Your task to perform on an android device: allow notifications from all sites in the chrome app Image 0: 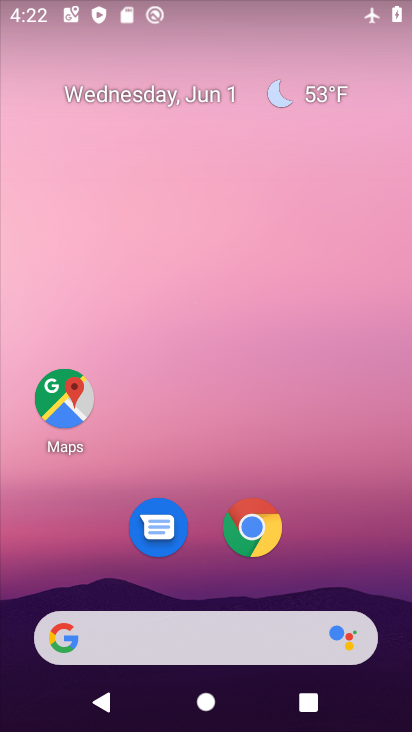
Step 0: drag from (321, 561) to (345, 42)
Your task to perform on an android device: allow notifications from all sites in the chrome app Image 1: 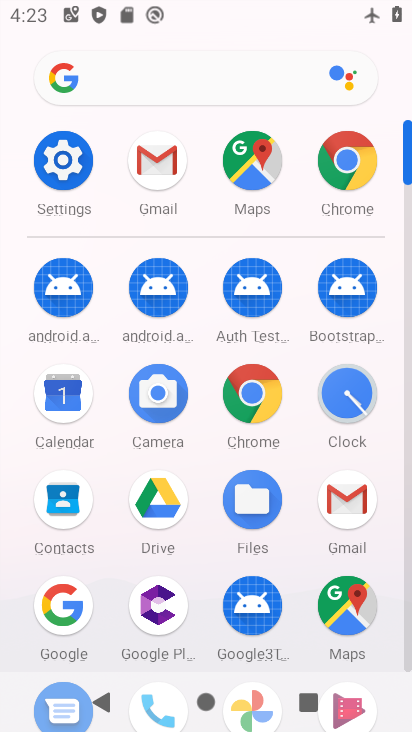
Step 1: click (258, 387)
Your task to perform on an android device: allow notifications from all sites in the chrome app Image 2: 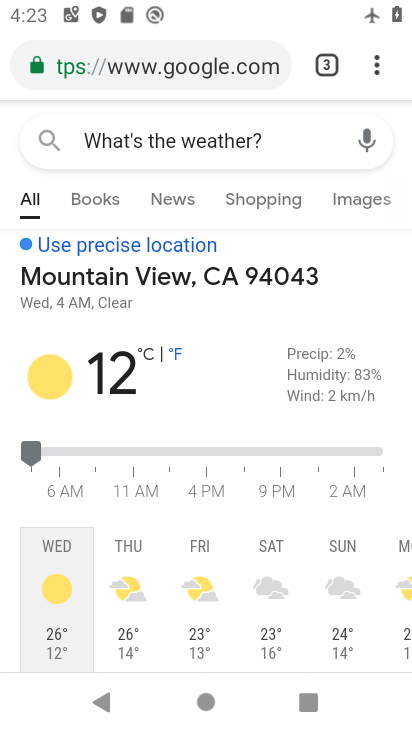
Step 2: click (376, 68)
Your task to perform on an android device: allow notifications from all sites in the chrome app Image 3: 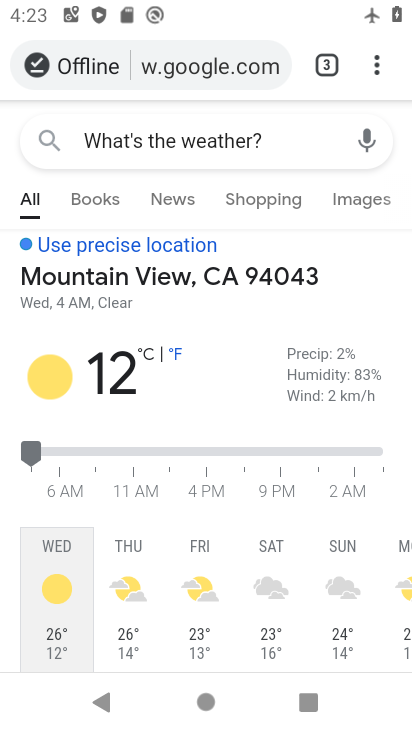
Step 3: drag from (333, 3) to (258, 616)
Your task to perform on an android device: allow notifications from all sites in the chrome app Image 4: 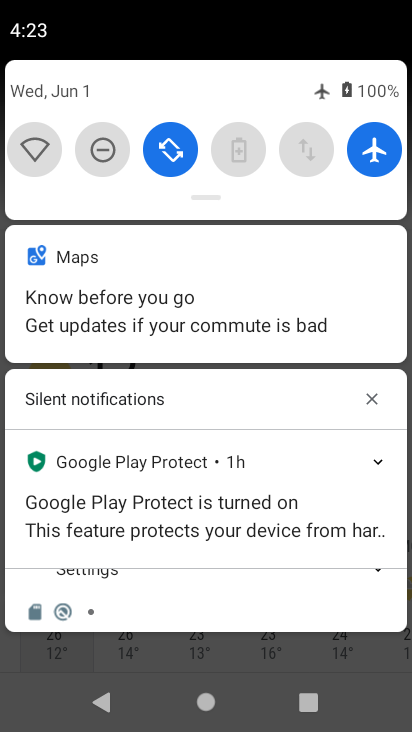
Step 4: click (379, 152)
Your task to perform on an android device: allow notifications from all sites in the chrome app Image 5: 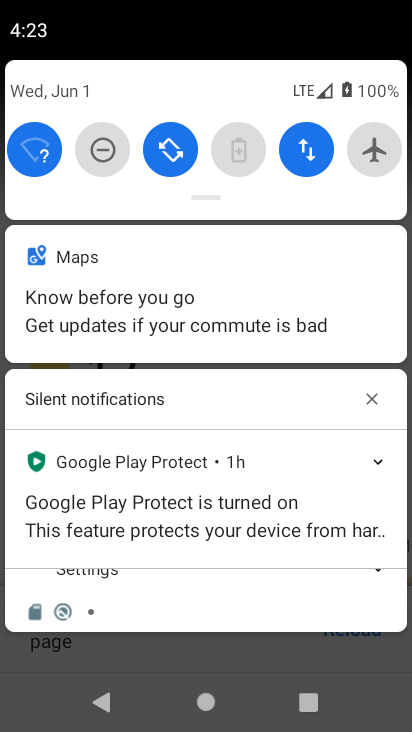
Step 5: click (390, 698)
Your task to perform on an android device: allow notifications from all sites in the chrome app Image 6: 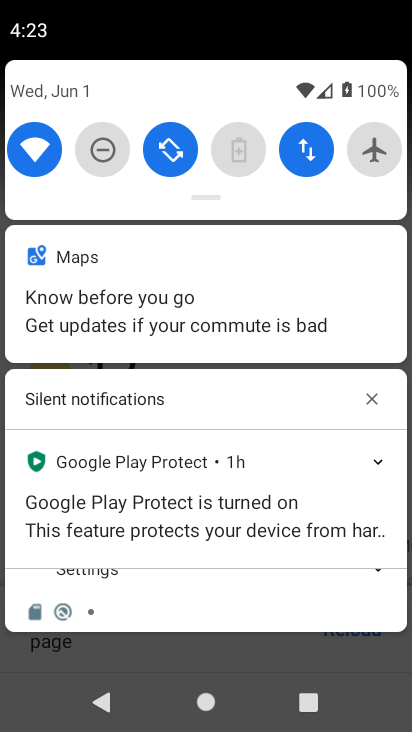
Step 6: click (400, 644)
Your task to perform on an android device: allow notifications from all sites in the chrome app Image 7: 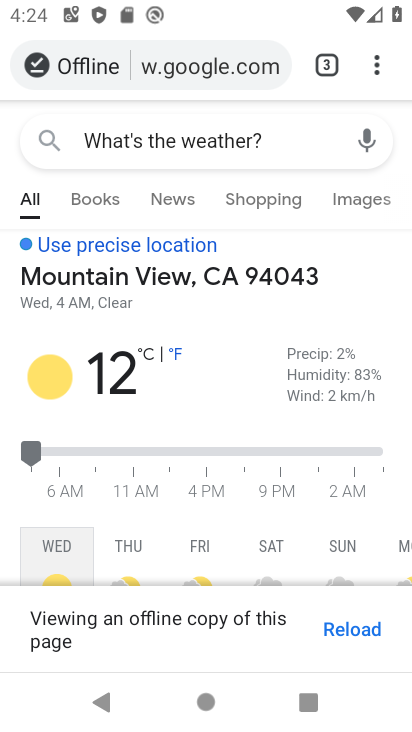
Step 7: drag from (380, 64) to (206, 563)
Your task to perform on an android device: allow notifications from all sites in the chrome app Image 8: 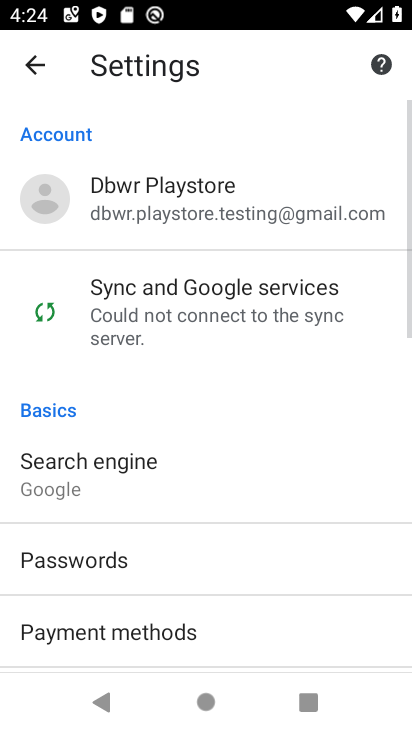
Step 8: drag from (207, 616) to (220, 194)
Your task to perform on an android device: allow notifications from all sites in the chrome app Image 9: 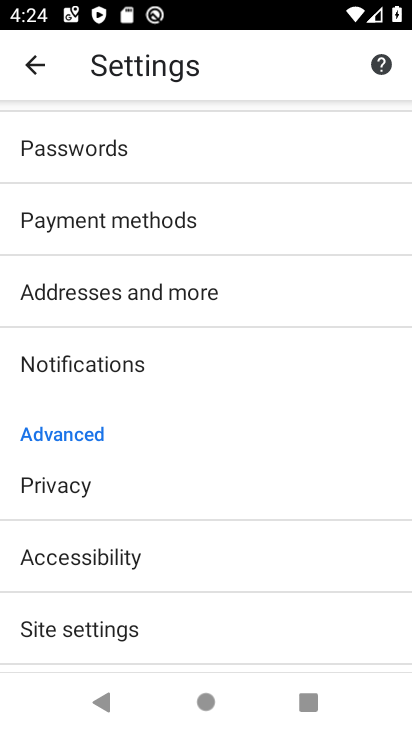
Step 9: click (140, 624)
Your task to perform on an android device: allow notifications from all sites in the chrome app Image 10: 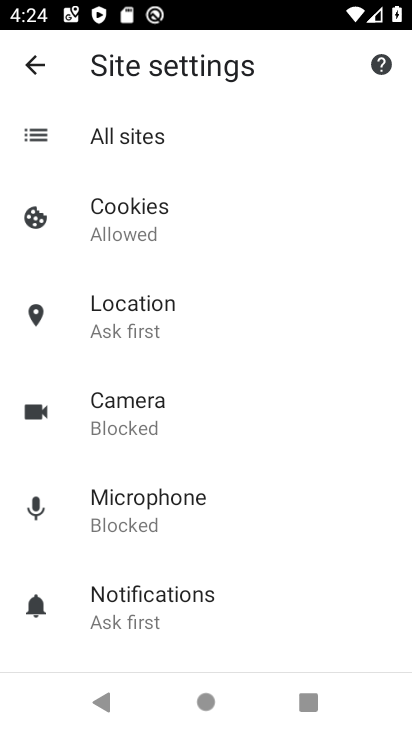
Step 10: click (146, 137)
Your task to perform on an android device: allow notifications from all sites in the chrome app Image 11: 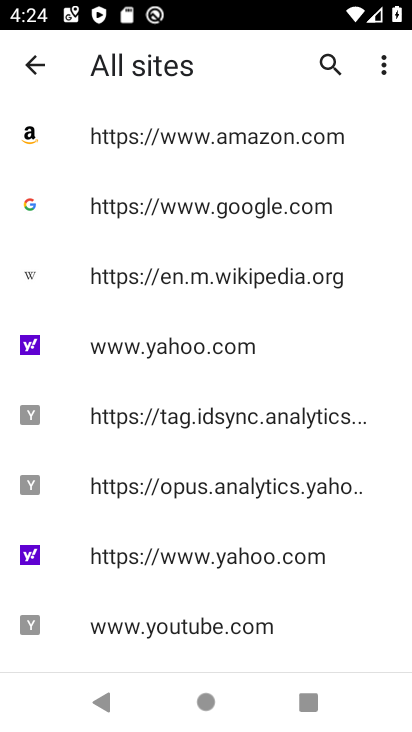
Step 11: drag from (173, 596) to (191, 93)
Your task to perform on an android device: allow notifications from all sites in the chrome app Image 12: 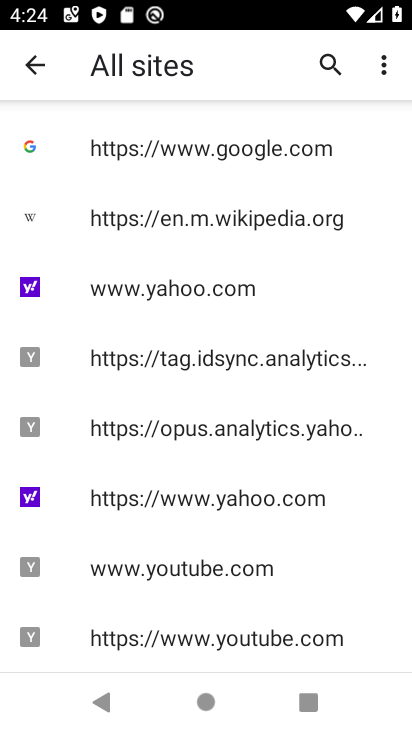
Step 12: click (221, 634)
Your task to perform on an android device: allow notifications from all sites in the chrome app Image 13: 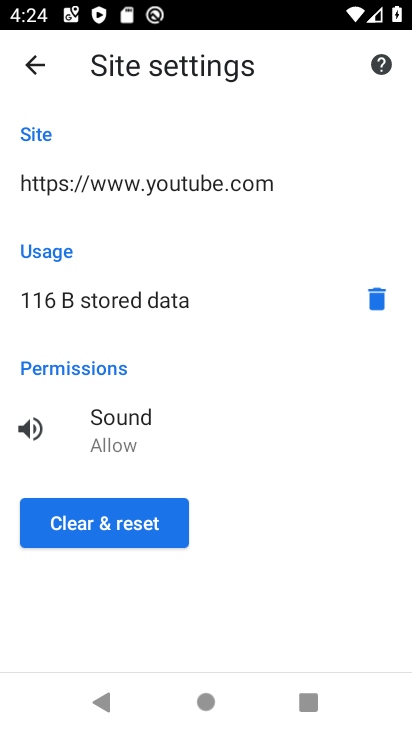
Step 13: task complete